Your task to perform on an android device: What's the weather going to be this weekend? Image 0: 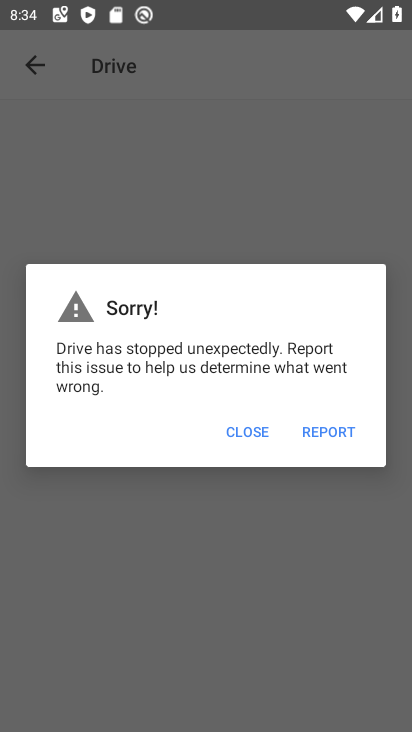
Step 0: press back button
Your task to perform on an android device: What's the weather going to be this weekend? Image 1: 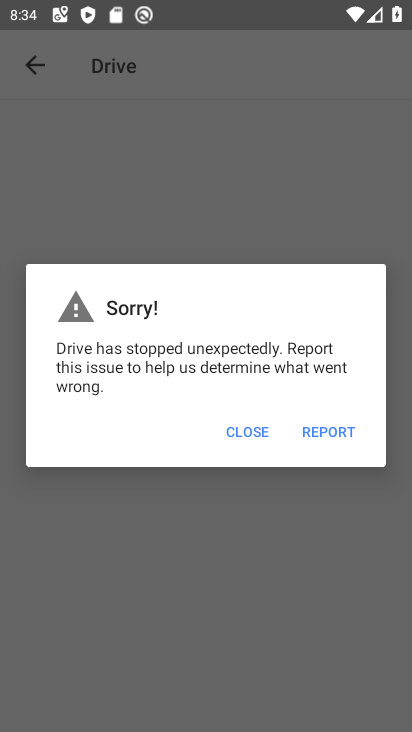
Step 1: press home button
Your task to perform on an android device: What's the weather going to be this weekend? Image 2: 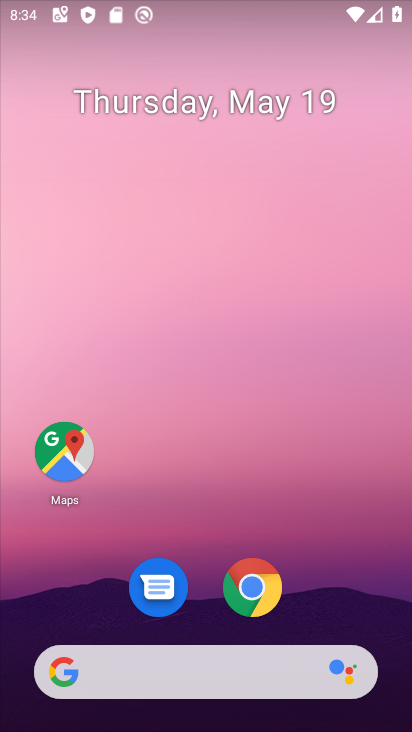
Step 2: drag from (365, 595) to (297, 66)
Your task to perform on an android device: What's the weather going to be this weekend? Image 3: 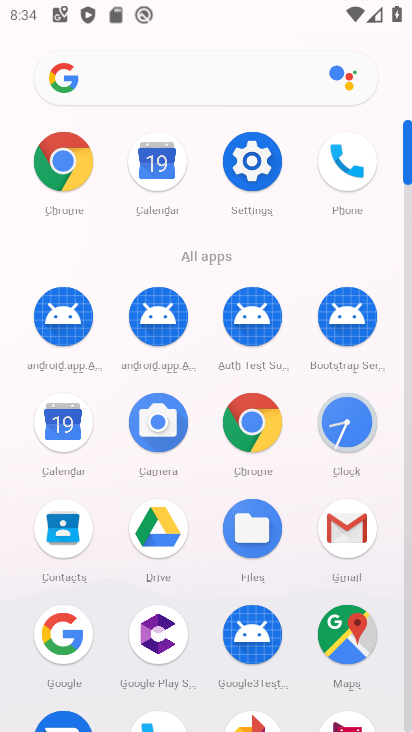
Step 3: click (62, 162)
Your task to perform on an android device: What's the weather going to be this weekend? Image 4: 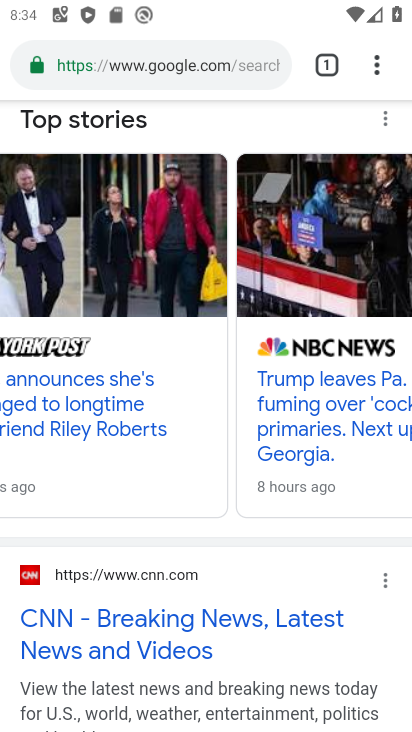
Step 4: click (173, 52)
Your task to perform on an android device: What's the weather going to be this weekend? Image 5: 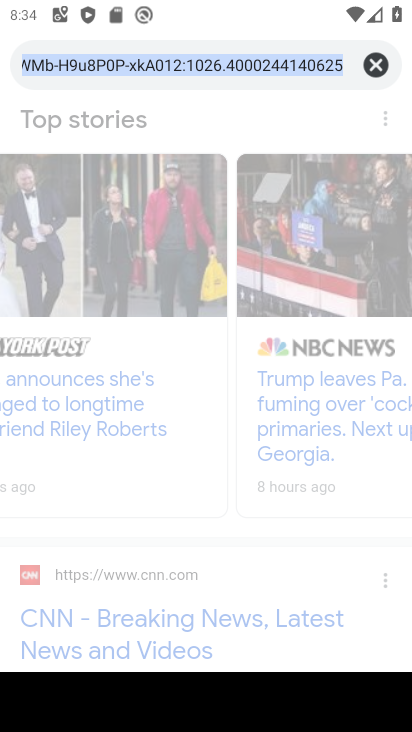
Step 5: click (374, 65)
Your task to perform on an android device: What's the weather going to be this weekend? Image 6: 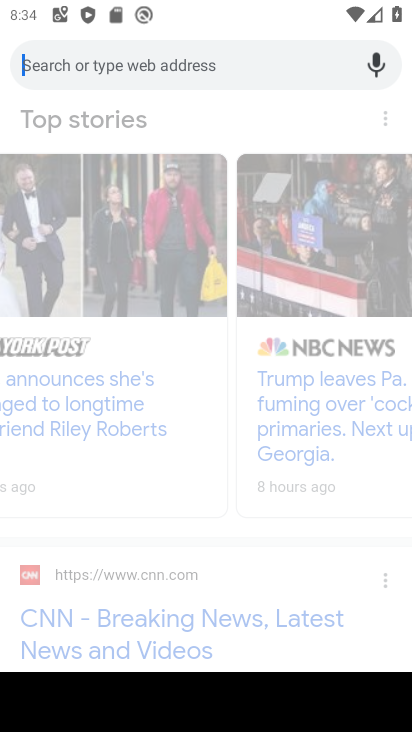
Step 6: type "What's the weather going to be this weekend?"
Your task to perform on an android device: What's the weather going to be this weekend? Image 7: 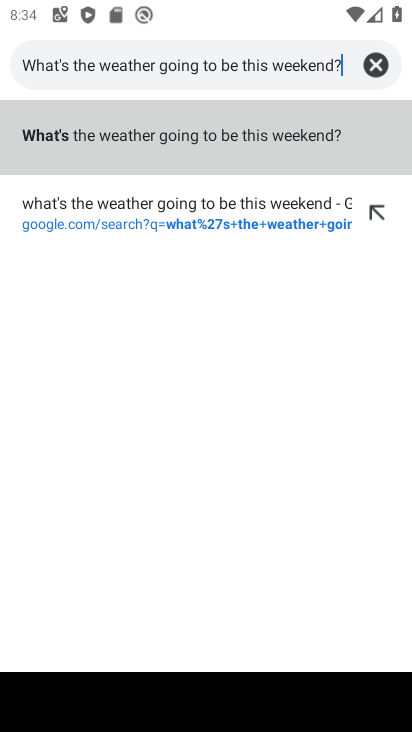
Step 7: type ""
Your task to perform on an android device: What's the weather going to be this weekend? Image 8: 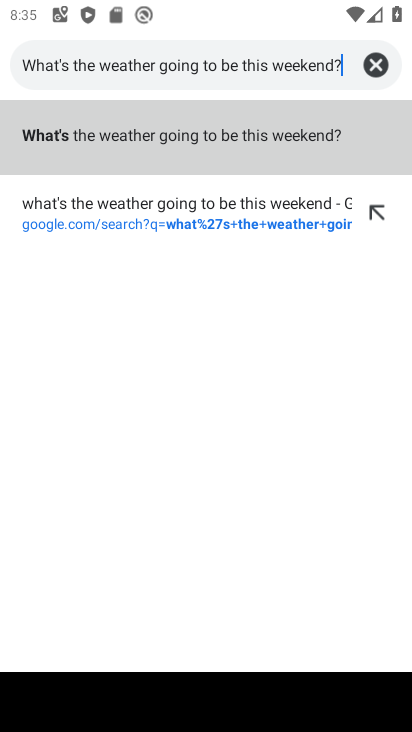
Step 8: click (158, 135)
Your task to perform on an android device: What's the weather going to be this weekend? Image 9: 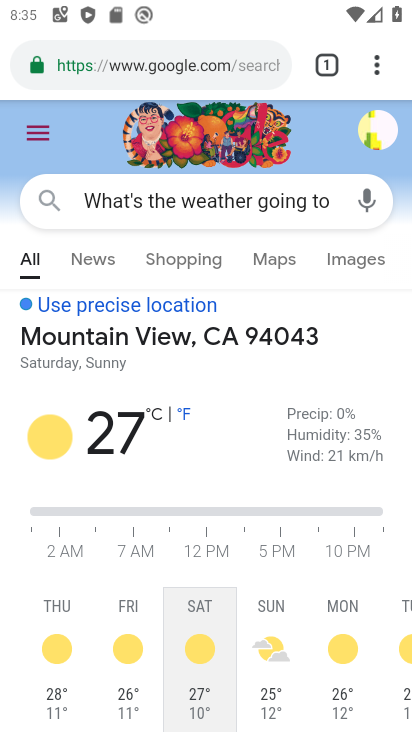
Step 9: task complete